Your task to perform on an android device: Show me the alarms in the clock app Image 0: 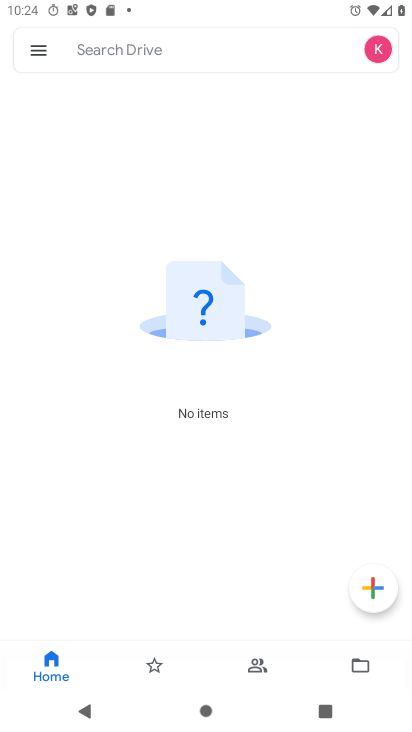
Step 0: press back button
Your task to perform on an android device: Show me the alarms in the clock app Image 1: 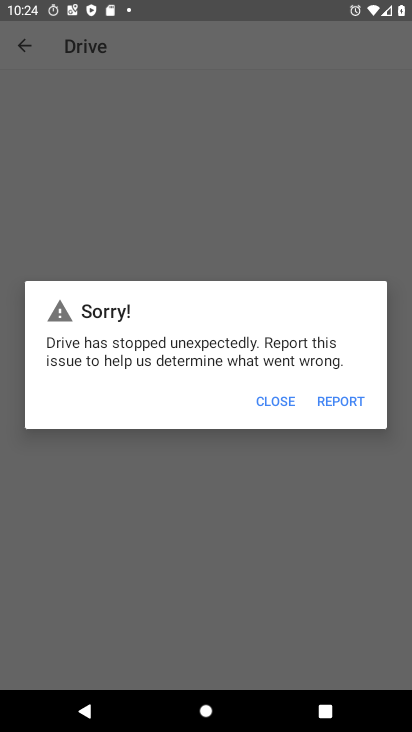
Step 1: press home button
Your task to perform on an android device: Show me the alarms in the clock app Image 2: 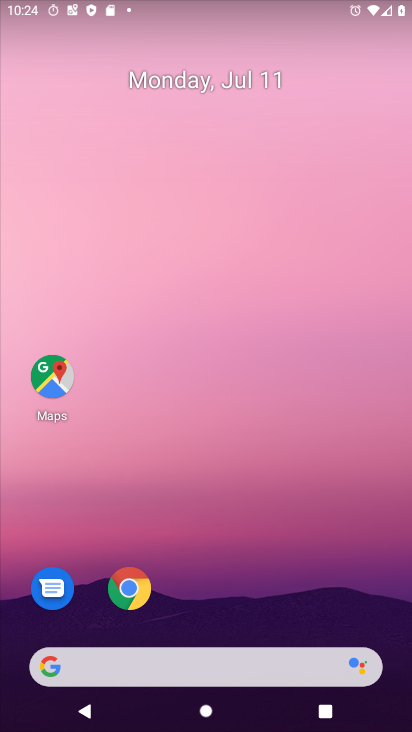
Step 2: drag from (190, 594) to (287, 18)
Your task to perform on an android device: Show me the alarms in the clock app Image 3: 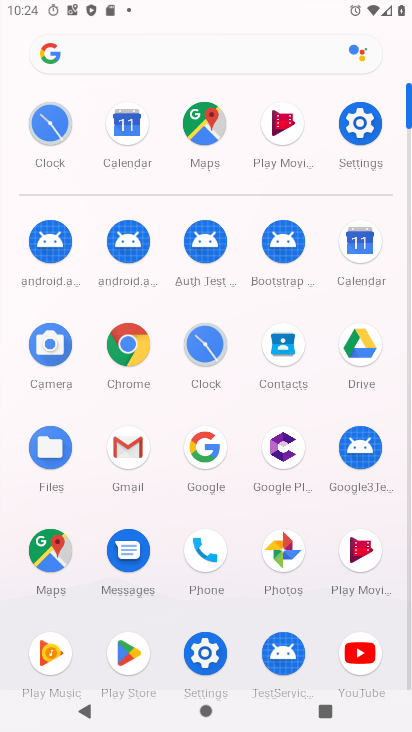
Step 3: click (208, 338)
Your task to perform on an android device: Show me the alarms in the clock app Image 4: 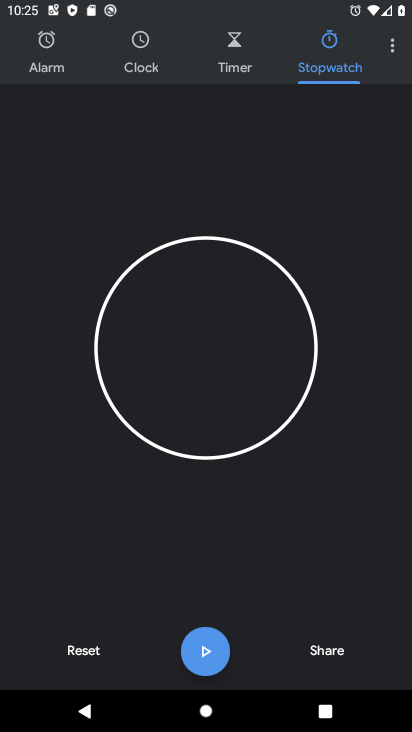
Step 4: click (43, 43)
Your task to perform on an android device: Show me the alarms in the clock app Image 5: 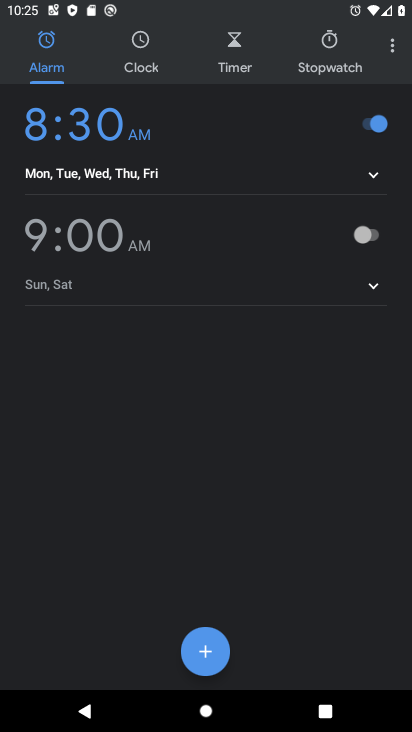
Step 5: task complete